Your task to perform on an android device: Search for Mexican restaurants on Maps Image 0: 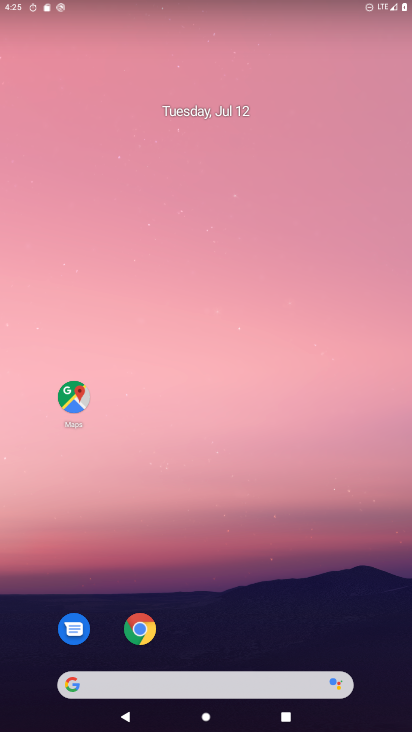
Step 0: drag from (275, 584) to (248, 13)
Your task to perform on an android device: Search for Mexican restaurants on Maps Image 1: 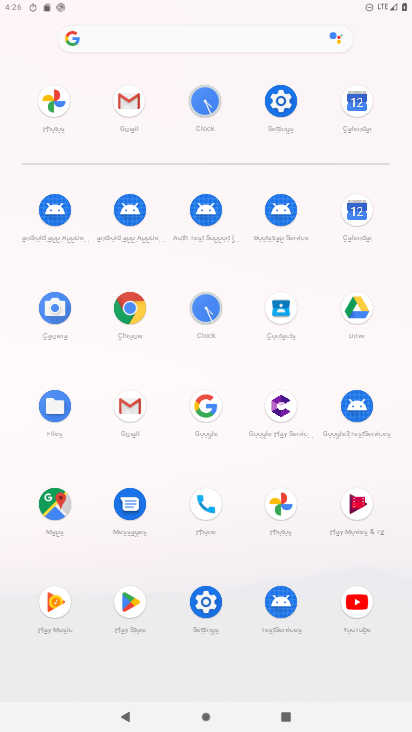
Step 1: click (54, 500)
Your task to perform on an android device: Search for Mexican restaurants on Maps Image 2: 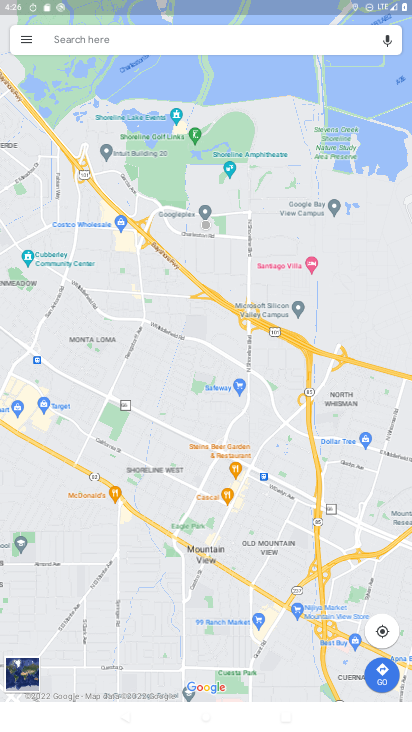
Step 2: click (56, 33)
Your task to perform on an android device: Search for Mexican restaurants on Maps Image 3: 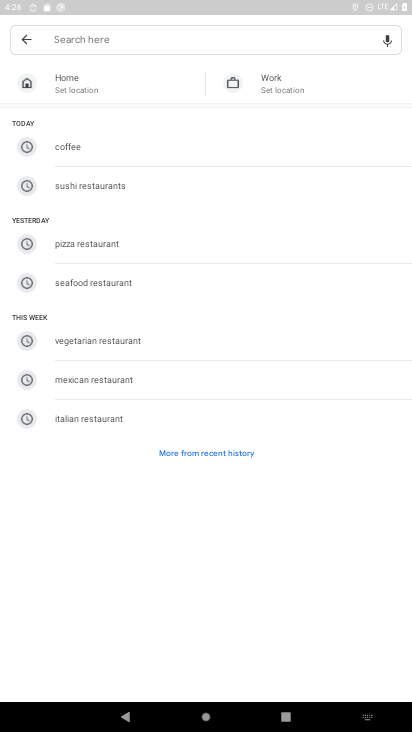
Step 3: type " Mexican restaurants "
Your task to perform on an android device: Search for Mexican restaurants on Maps Image 4: 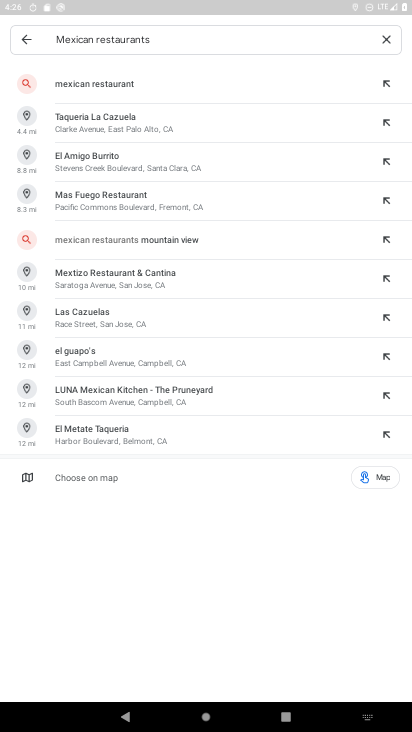
Step 4: click (102, 87)
Your task to perform on an android device: Search for Mexican restaurants on Maps Image 5: 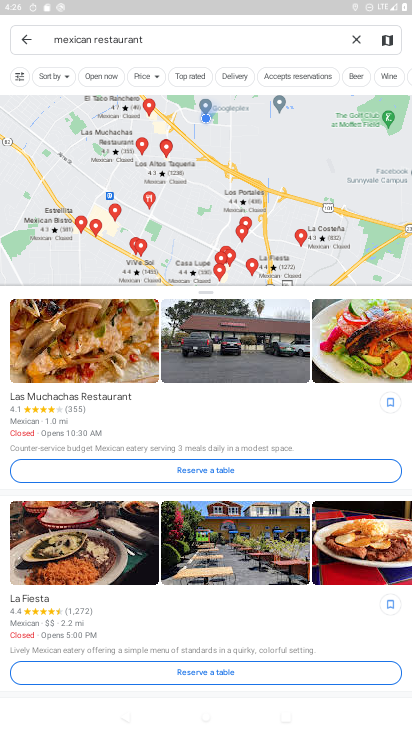
Step 5: task complete